Your task to perform on an android device: find photos in the google photos app Image 0: 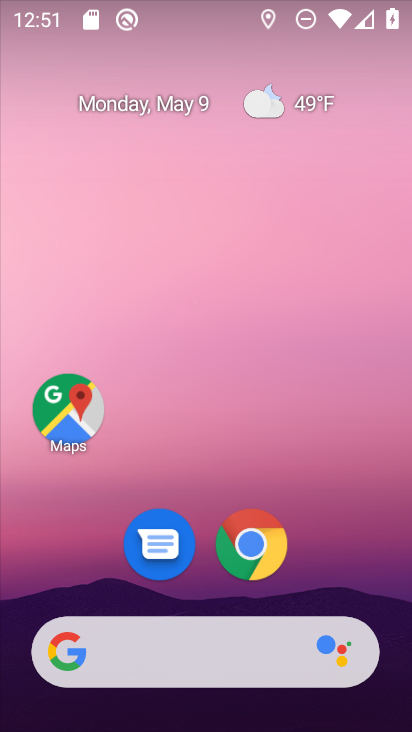
Step 0: drag from (344, 533) to (403, 9)
Your task to perform on an android device: find photos in the google photos app Image 1: 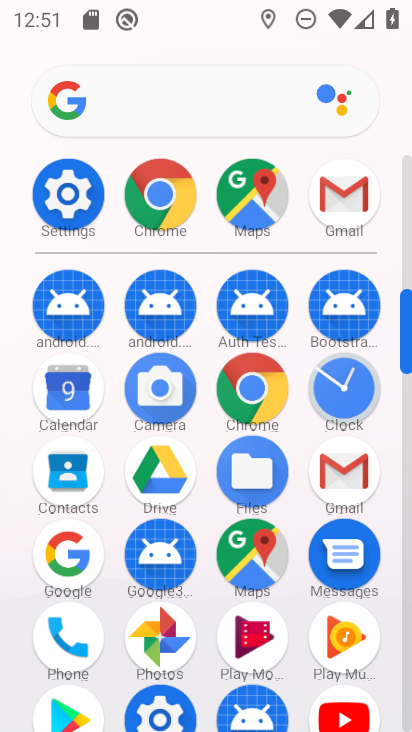
Step 1: click (164, 645)
Your task to perform on an android device: find photos in the google photos app Image 2: 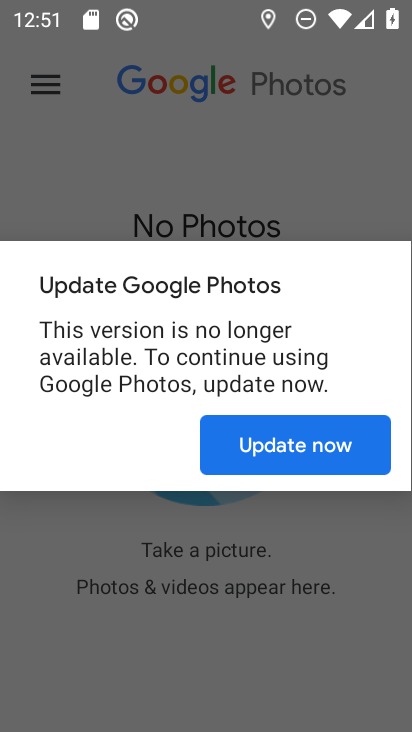
Step 2: click (345, 445)
Your task to perform on an android device: find photos in the google photos app Image 3: 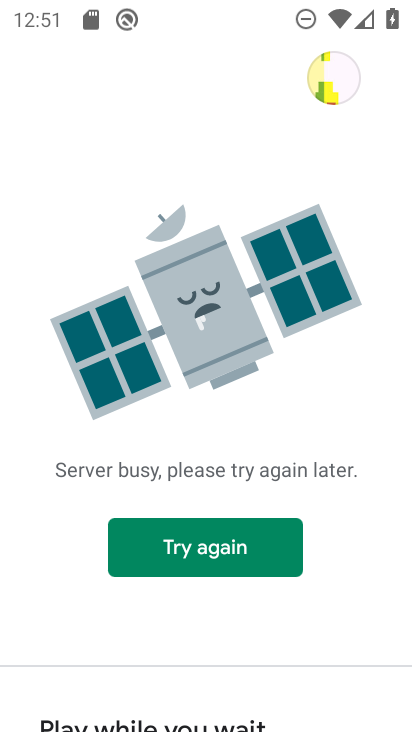
Step 3: click (228, 556)
Your task to perform on an android device: find photos in the google photos app Image 4: 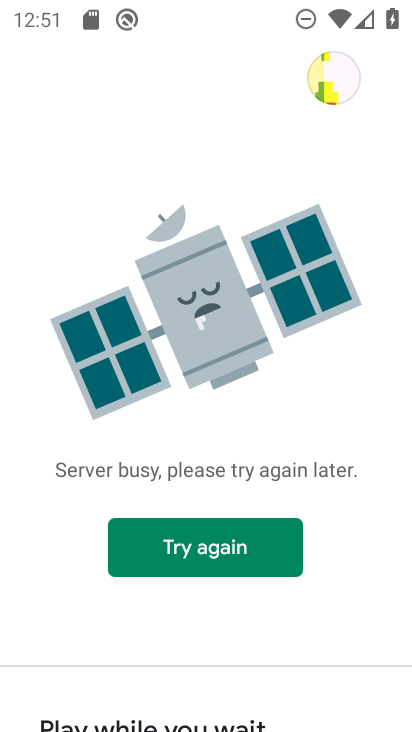
Step 4: click (205, 539)
Your task to perform on an android device: find photos in the google photos app Image 5: 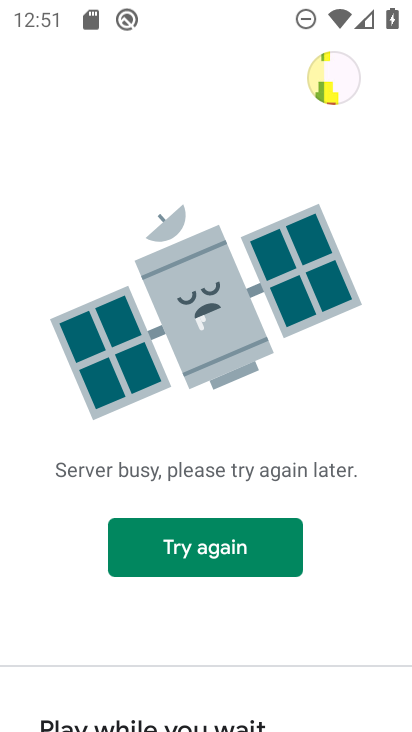
Step 5: press back button
Your task to perform on an android device: find photos in the google photos app Image 6: 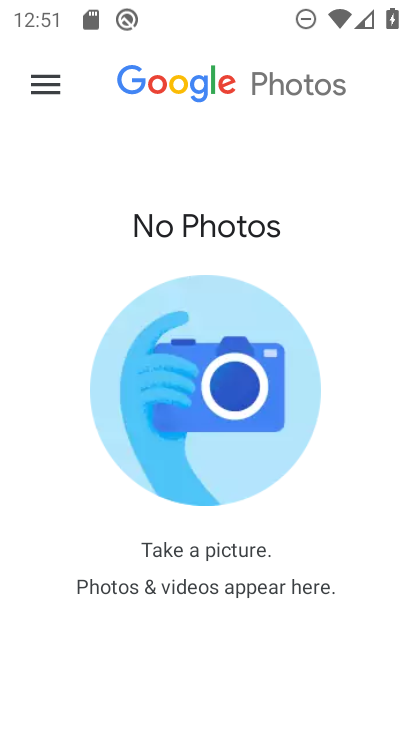
Step 6: click (72, 87)
Your task to perform on an android device: find photos in the google photos app Image 7: 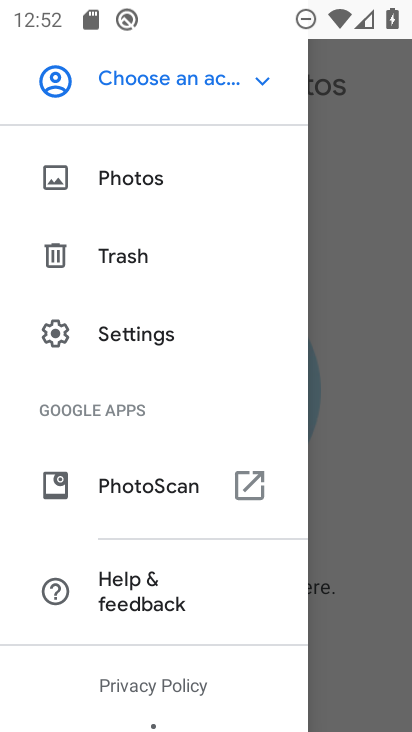
Step 7: click (83, 190)
Your task to perform on an android device: find photos in the google photos app Image 8: 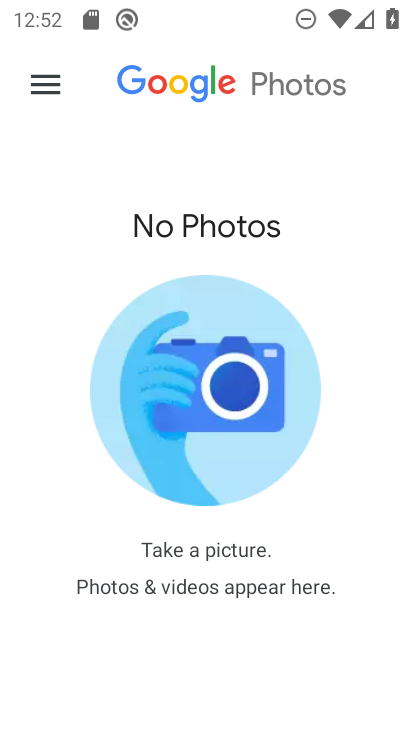
Step 8: task complete